Your task to perform on an android device: open chrome privacy settings Image 0: 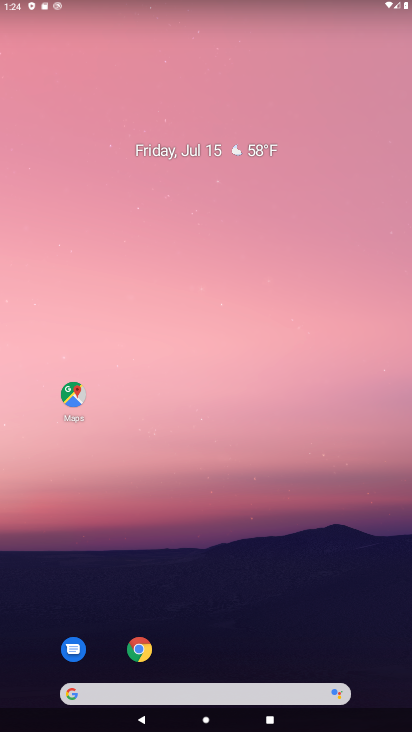
Step 0: drag from (333, 676) to (395, 81)
Your task to perform on an android device: open chrome privacy settings Image 1: 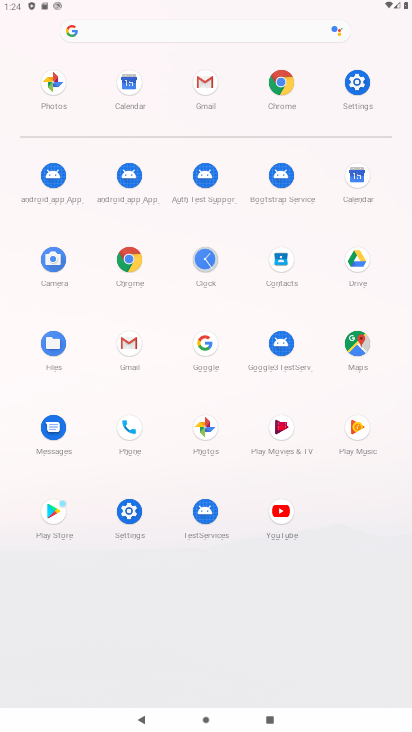
Step 1: click (352, 78)
Your task to perform on an android device: open chrome privacy settings Image 2: 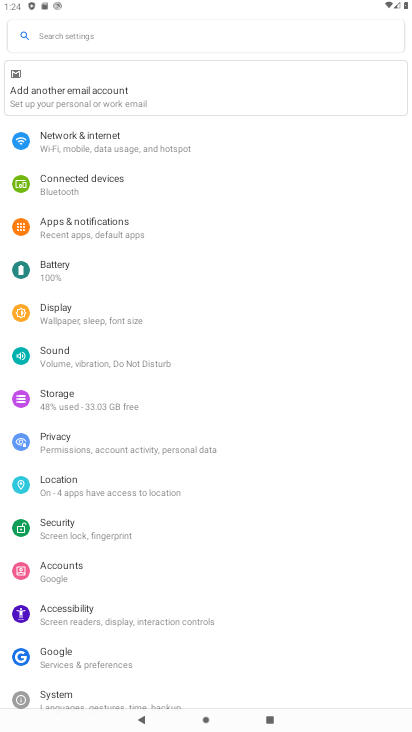
Step 2: press home button
Your task to perform on an android device: open chrome privacy settings Image 3: 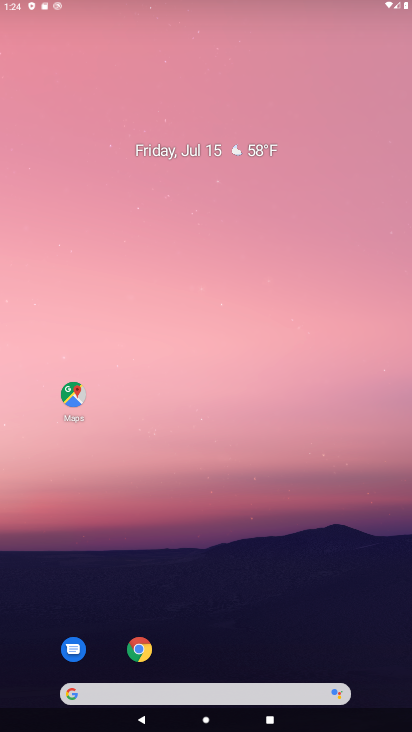
Step 3: drag from (163, 679) to (251, 183)
Your task to perform on an android device: open chrome privacy settings Image 4: 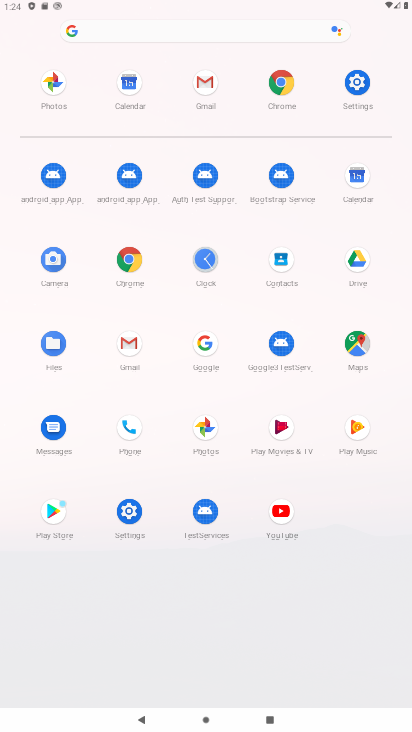
Step 4: click (132, 257)
Your task to perform on an android device: open chrome privacy settings Image 5: 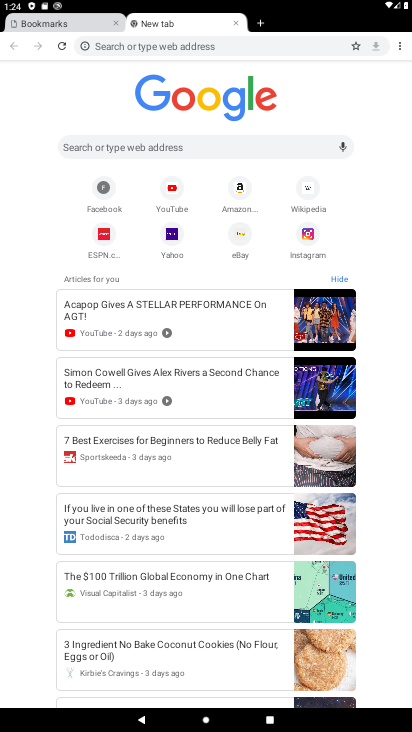
Step 5: drag from (394, 39) to (316, 216)
Your task to perform on an android device: open chrome privacy settings Image 6: 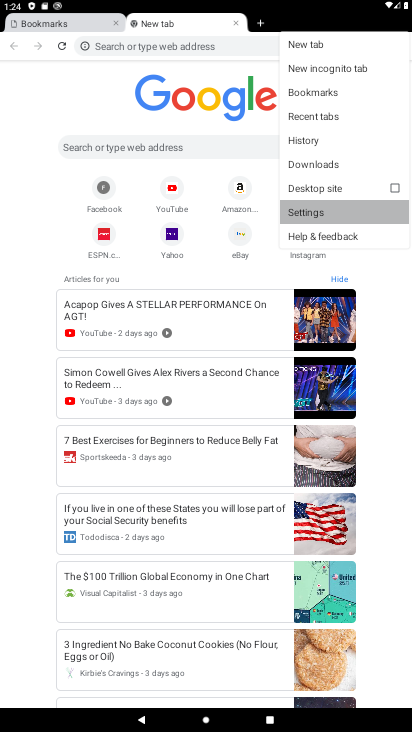
Step 6: click (316, 216)
Your task to perform on an android device: open chrome privacy settings Image 7: 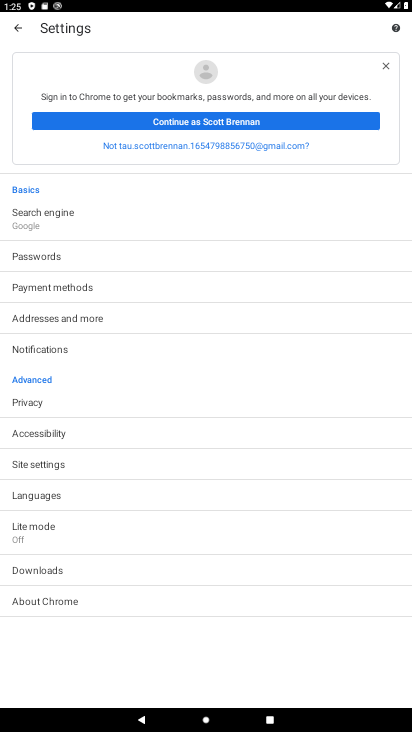
Step 7: click (70, 462)
Your task to perform on an android device: open chrome privacy settings Image 8: 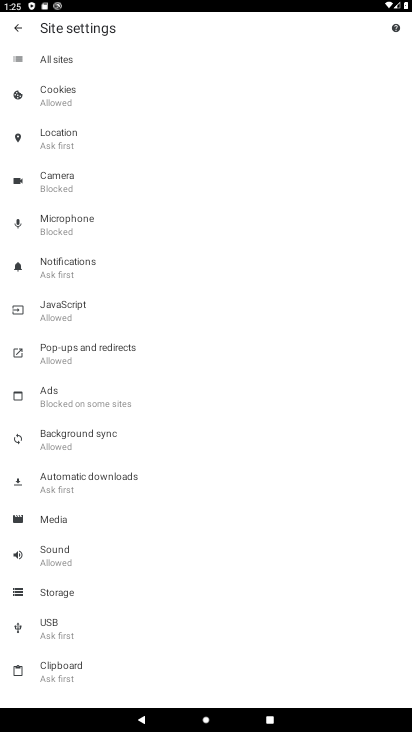
Step 8: press back button
Your task to perform on an android device: open chrome privacy settings Image 9: 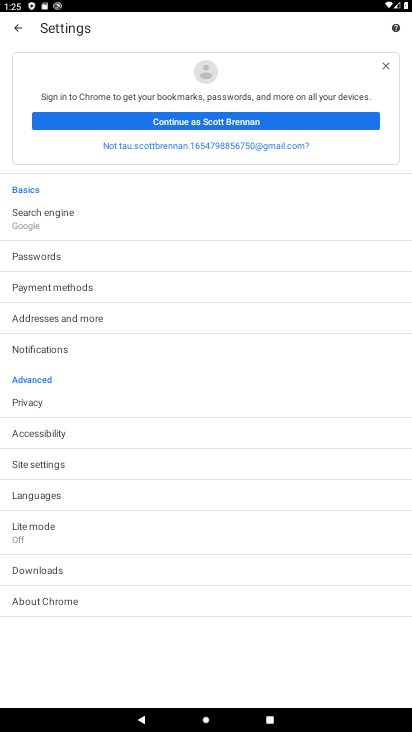
Step 9: click (31, 395)
Your task to perform on an android device: open chrome privacy settings Image 10: 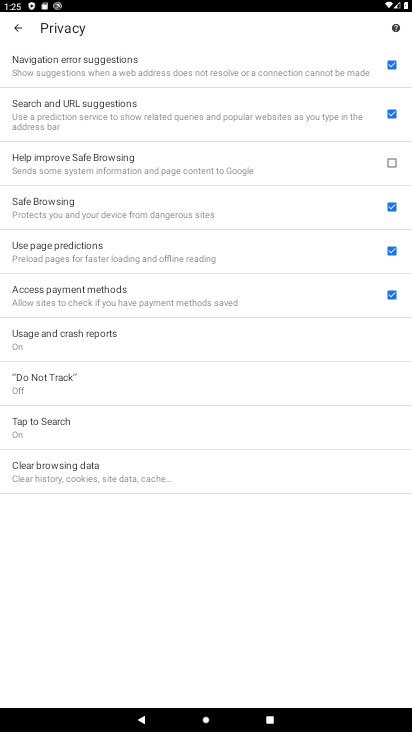
Step 10: task complete